Your task to perform on an android device: Set the phone to "Do not disturb". Image 0: 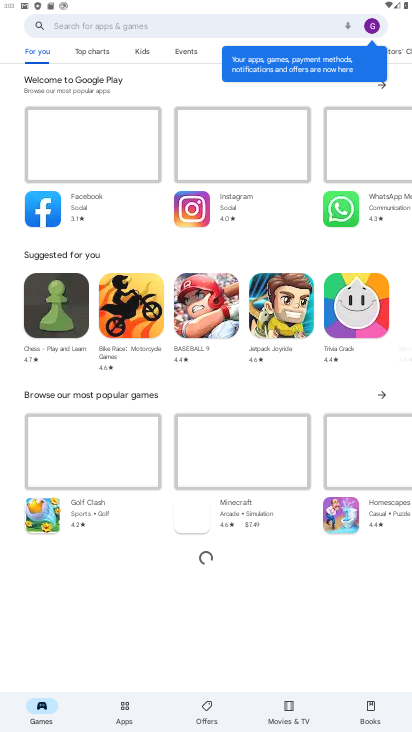
Step 0: press home button
Your task to perform on an android device: Set the phone to "Do not disturb". Image 1: 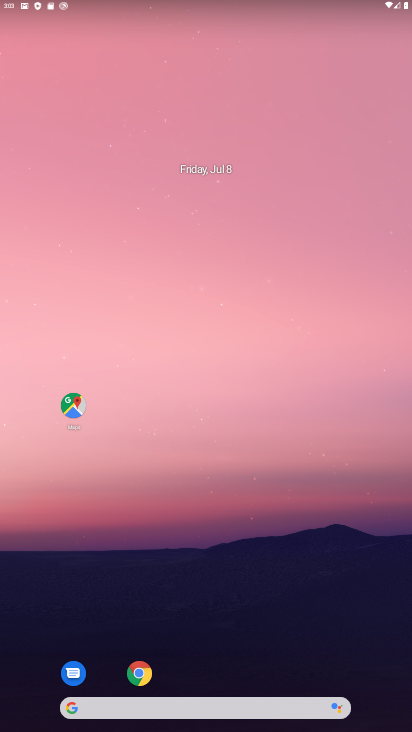
Step 1: drag from (248, 649) to (276, 384)
Your task to perform on an android device: Set the phone to "Do not disturb". Image 2: 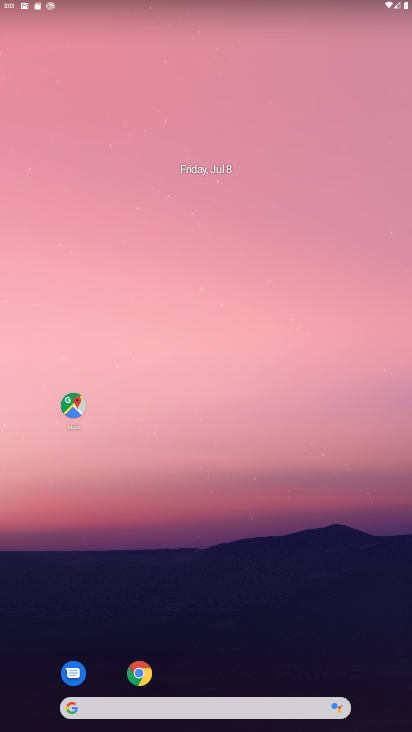
Step 2: drag from (279, 671) to (277, 240)
Your task to perform on an android device: Set the phone to "Do not disturb". Image 3: 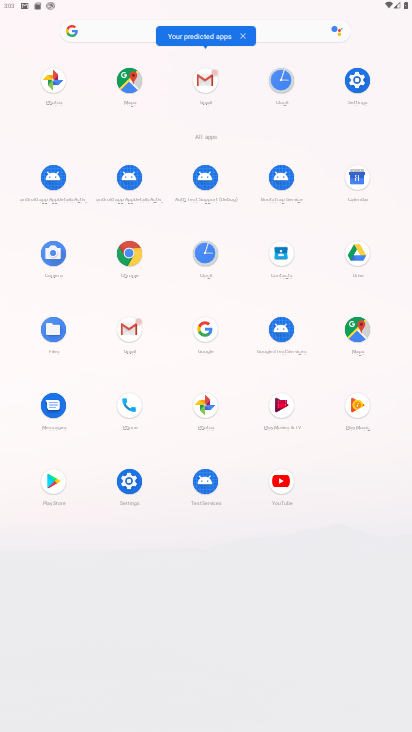
Step 3: click (367, 89)
Your task to perform on an android device: Set the phone to "Do not disturb". Image 4: 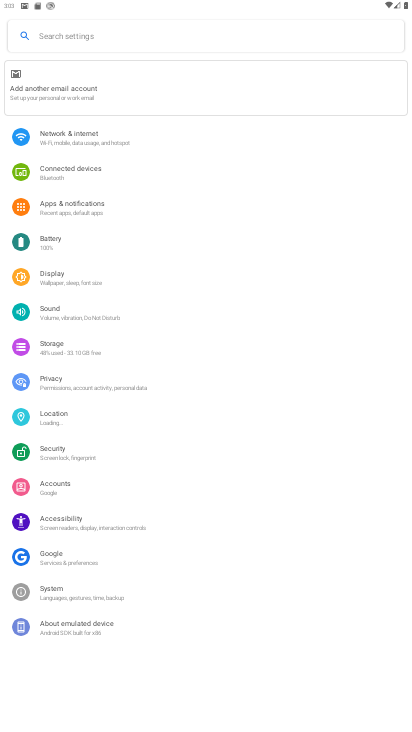
Step 4: click (74, 277)
Your task to perform on an android device: Set the phone to "Do not disturb". Image 5: 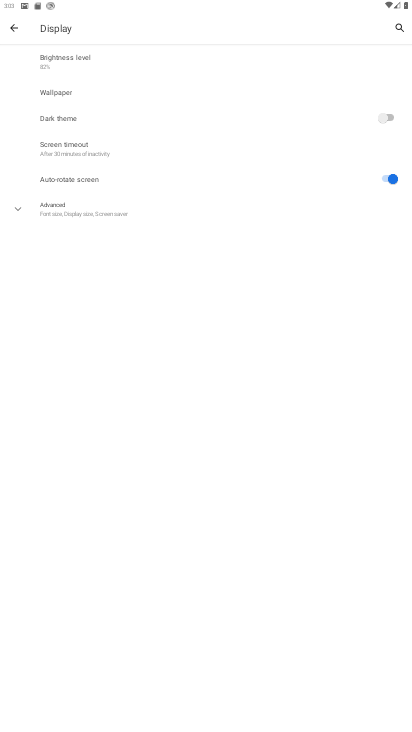
Step 5: click (71, 209)
Your task to perform on an android device: Set the phone to "Do not disturb". Image 6: 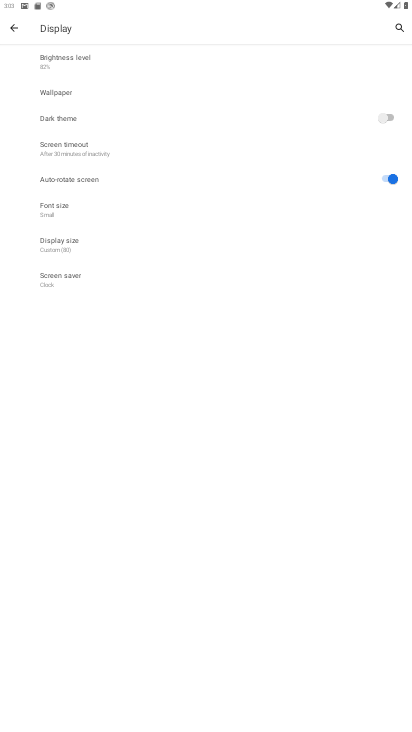
Step 6: click (11, 33)
Your task to perform on an android device: Set the phone to "Do not disturb". Image 7: 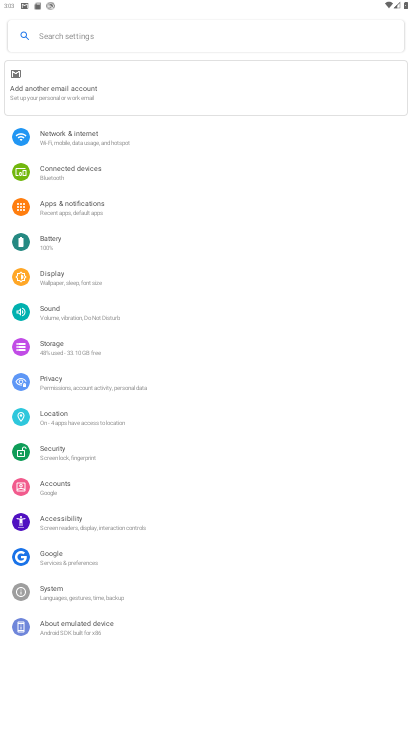
Step 7: click (58, 312)
Your task to perform on an android device: Set the phone to "Do not disturb". Image 8: 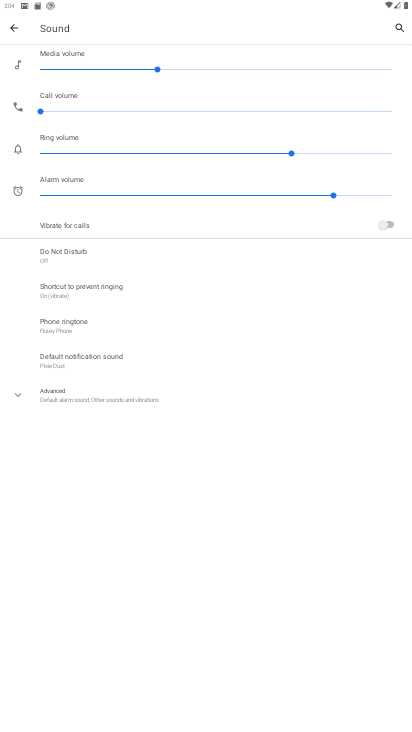
Step 8: click (63, 253)
Your task to perform on an android device: Set the phone to "Do not disturb". Image 9: 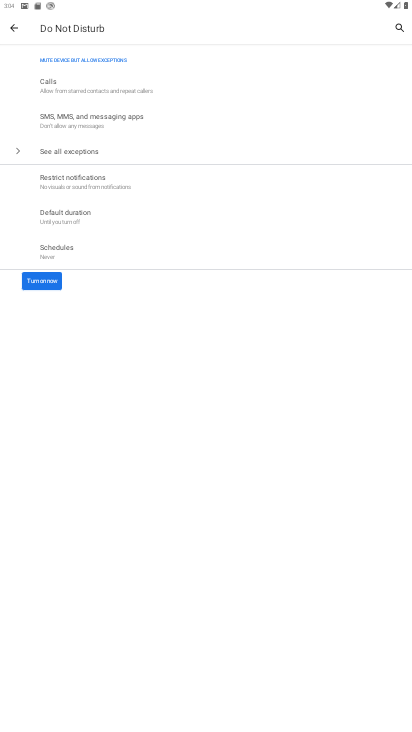
Step 9: click (47, 283)
Your task to perform on an android device: Set the phone to "Do not disturb". Image 10: 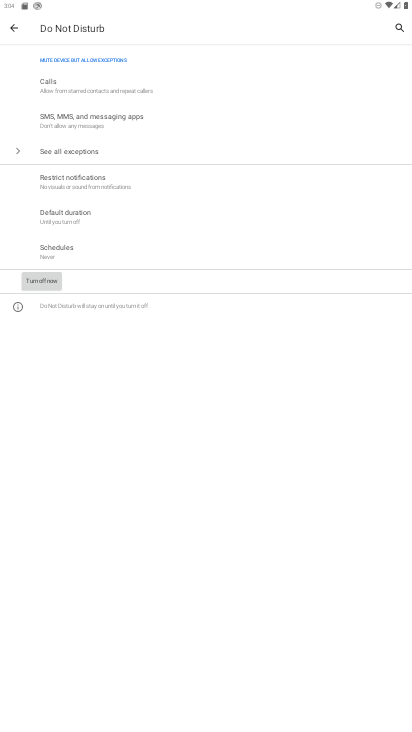
Step 10: task complete